Your task to perform on an android device: turn notification dots on Image 0: 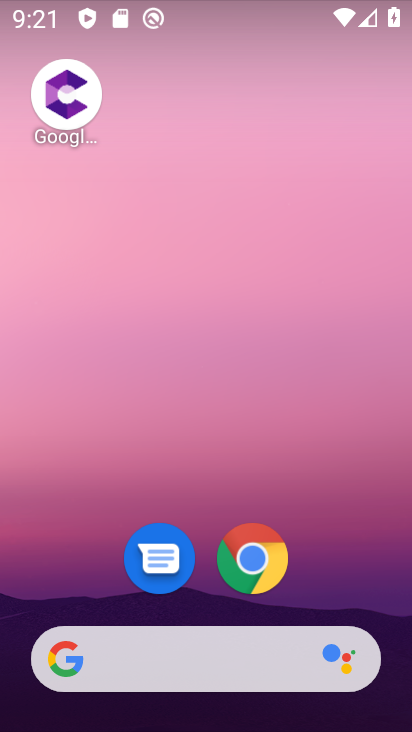
Step 0: drag from (191, 635) to (183, 274)
Your task to perform on an android device: turn notification dots on Image 1: 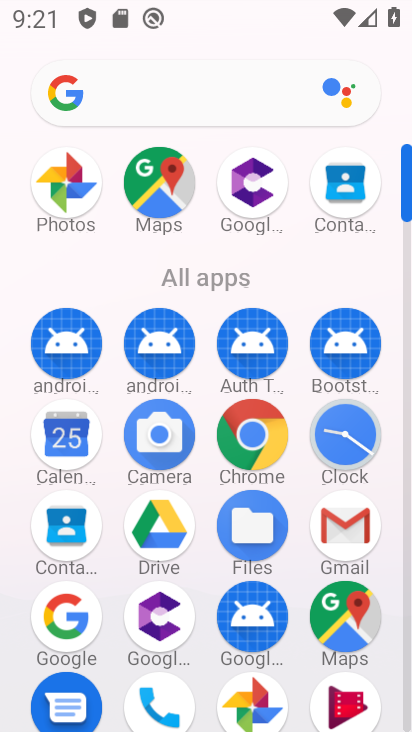
Step 1: drag from (207, 588) to (217, 294)
Your task to perform on an android device: turn notification dots on Image 2: 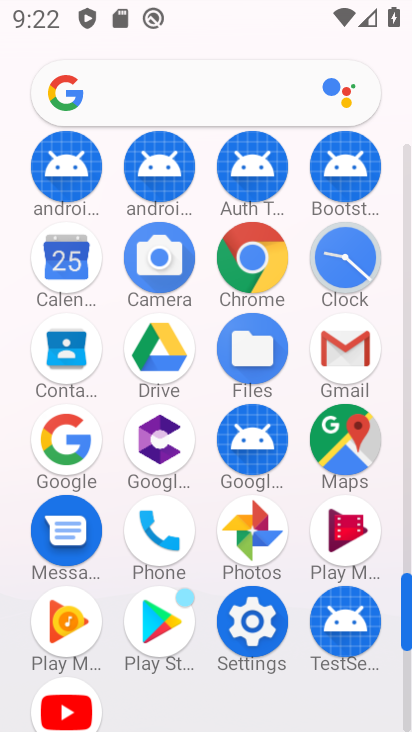
Step 2: click (254, 634)
Your task to perform on an android device: turn notification dots on Image 3: 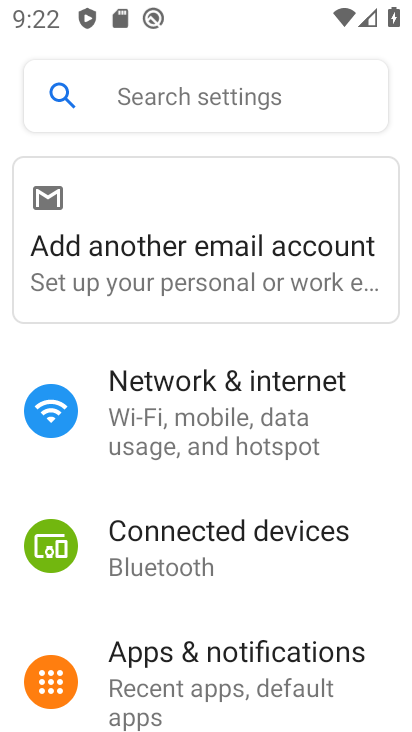
Step 3: click (188, 686)
Your task to perform on an android device: turn notification dots on Image 4: 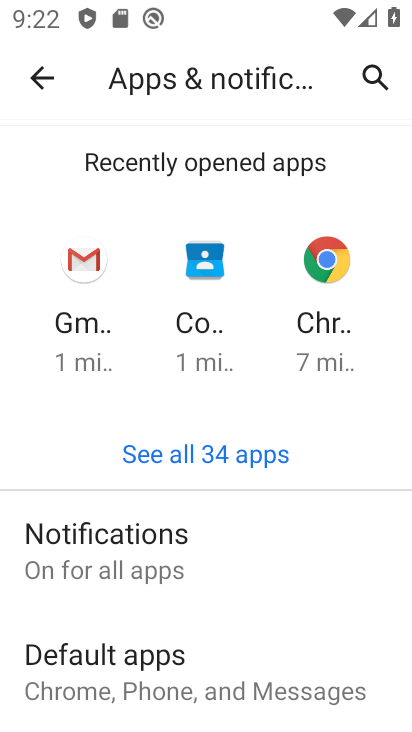
Step 4: click (162, 567)
Your task to perform on an android device: turn notification dots on Image 5: 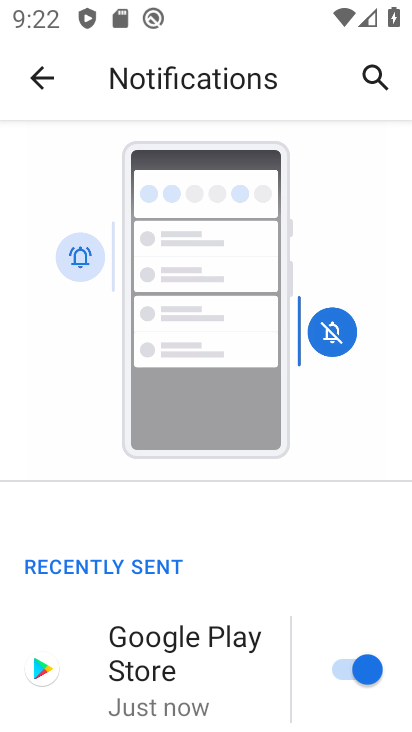
Step 5: drag from (253, 663) to (226, 144)
Your task to perform on an android device: turn notification dots on Image 6: 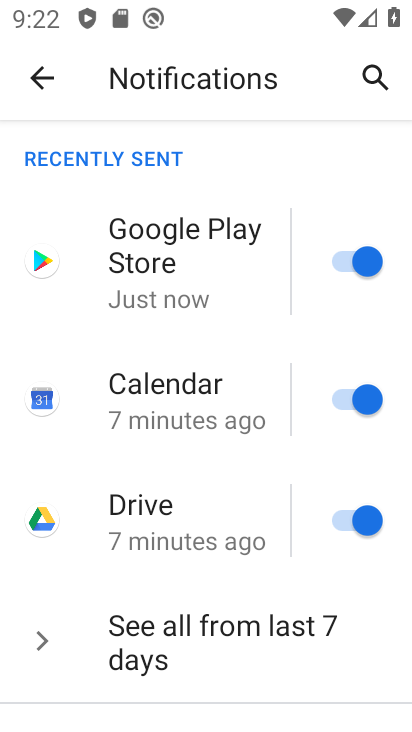
Step 6: drag from (140, 602) to (80, 7)
Your task to perform on an android device: turn notification dots on Image 7: 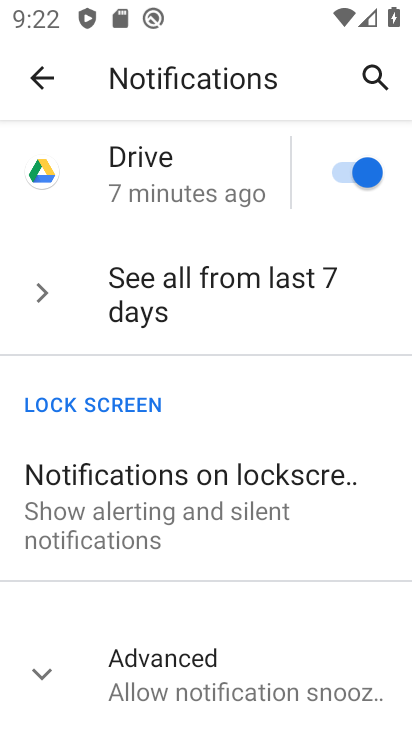
Step 7: drag from (218, 646) to (0, 56)
Your task to perform on an android device: turn notification dots on Image 8: 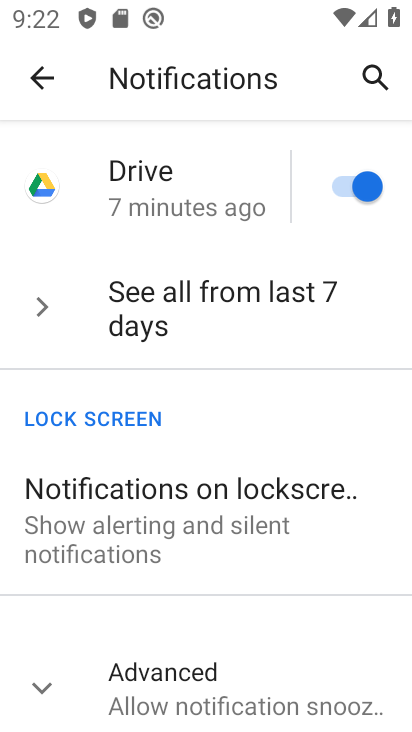
Step 8: click (210, 650)
Your task to perform on an android device: turn notification dots on Image 9: 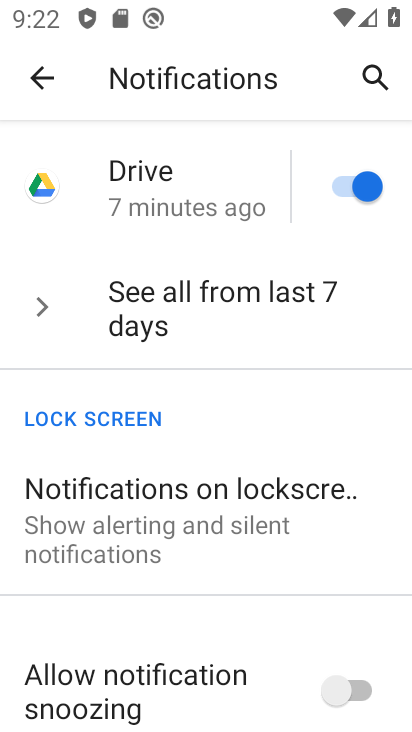
Step 9: task complete